Your task to perform on an android device: Open Yahoo.com Image 0: 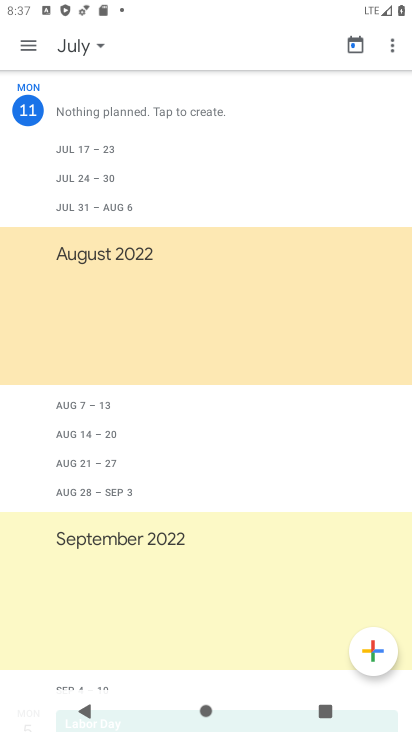
Step 0: press home button
Your task to perform on an android device: Open Yahoo.com Image 1: 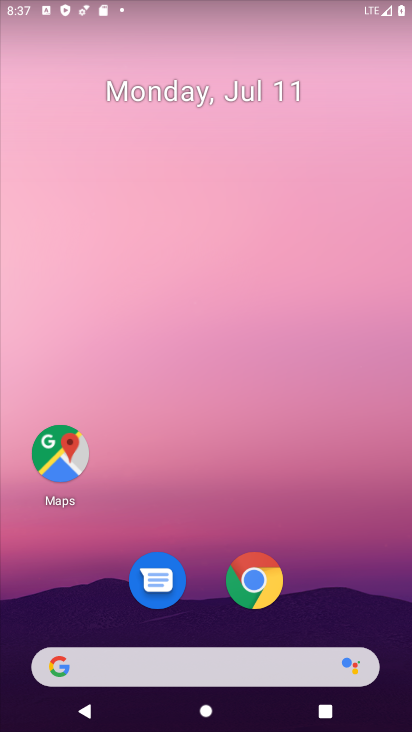
Step 1: click (200, 672)
Your task to perform on an android device: Open Yahoo.com Image 2: 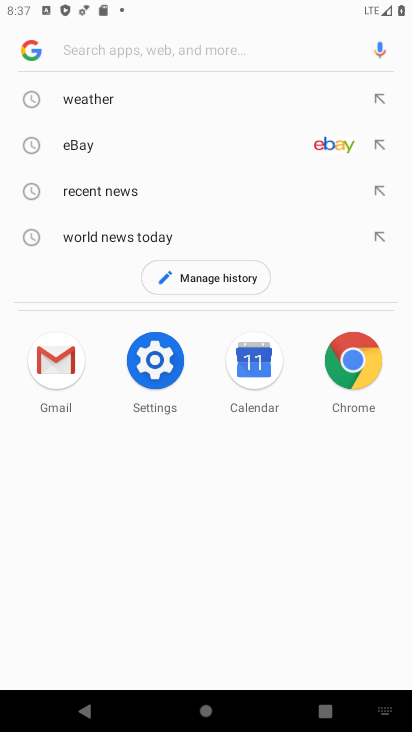
Step 2: type "yahoo.com"
Your task to perform on an android device: Open Yahoo.com Image 3: 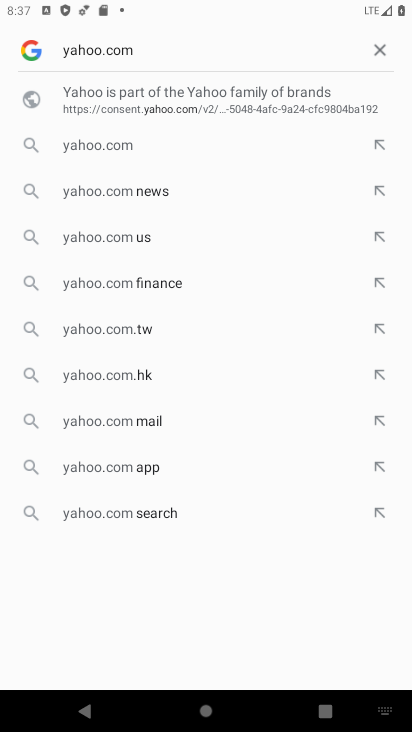
Step 3: click (158, 93)
Your task to perform on an android device: Open Yahoo.com Image 4: 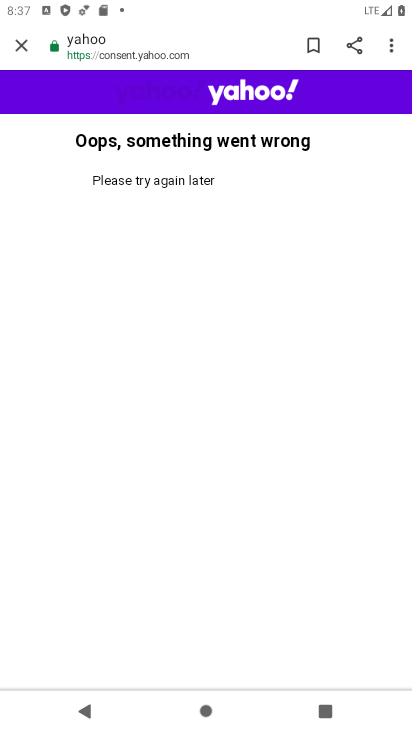
Step 4: press back button
Your task to perform on an android device: Open Yahoo.com Image 5: 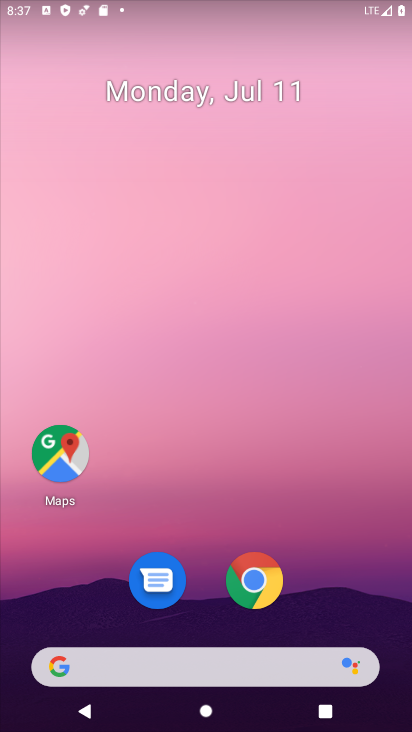
Step 5: click (214, 672)
Your task to perform on an android device: Open Yahoo.com Image 6: 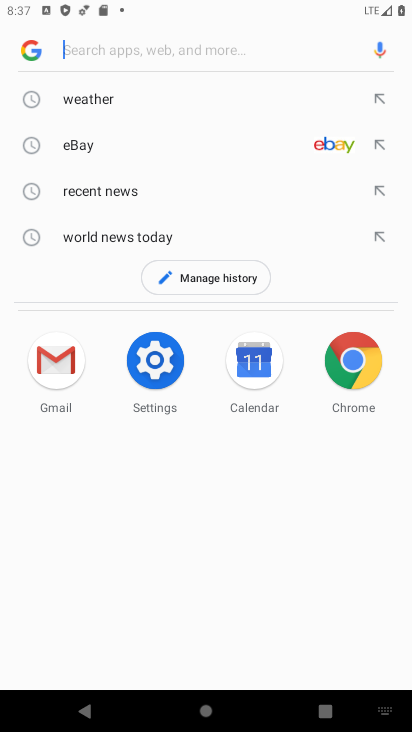
Step 6: type "yahoo.com"
Your task to perform on an android device: Open Yahoo.com Image 7: 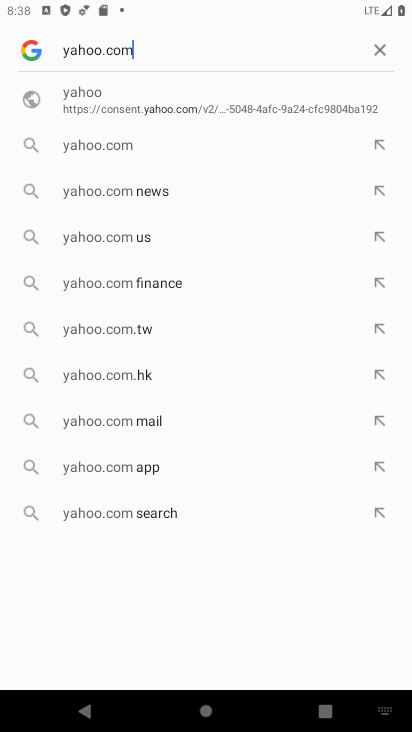
Step 7: click (114, 140)
Your task to perform on an android device: Open Yahoo.com Image 8: 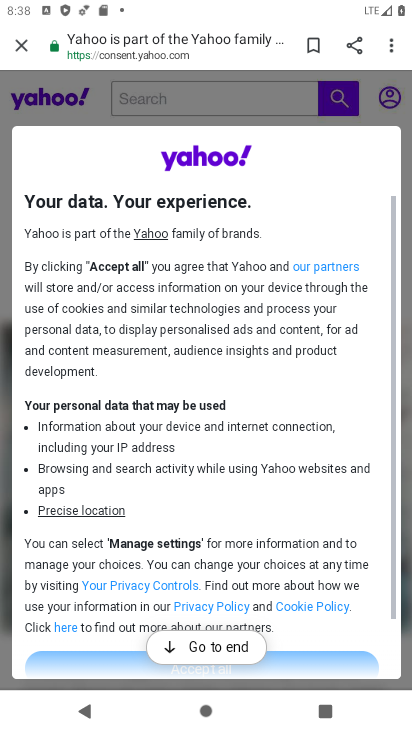
Step 8: click (249, 646)
Your task to perform on an android device: Open Yahoo.com Image 9: 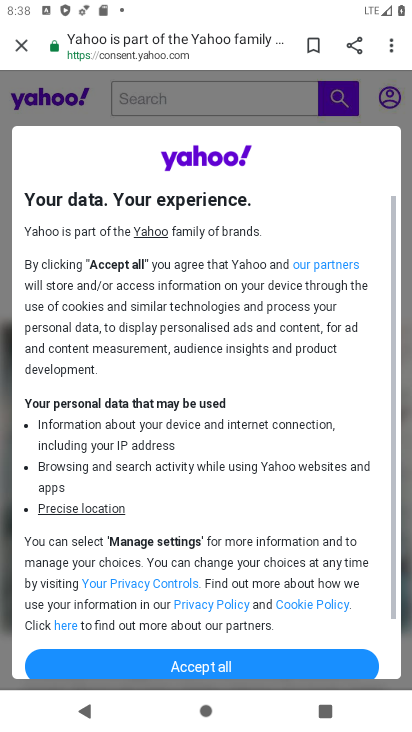
Step 9: click (233, 646)
Your task to perform on an android device: Open Yahoo.com Image 10: 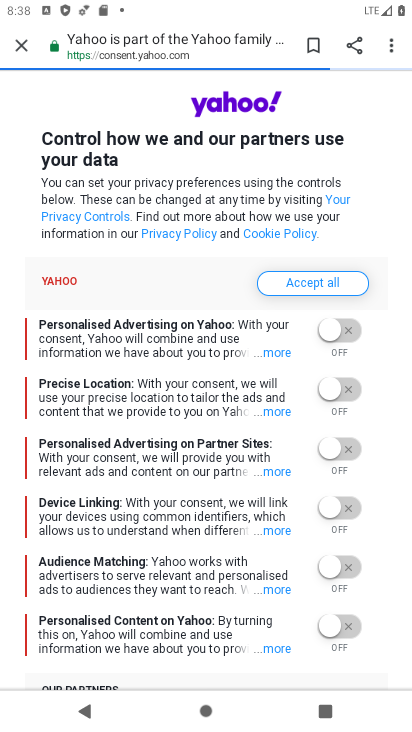
Step 10: click (238, 609)
Your task to perform on an android device: Open Yahoo.com Image 11: 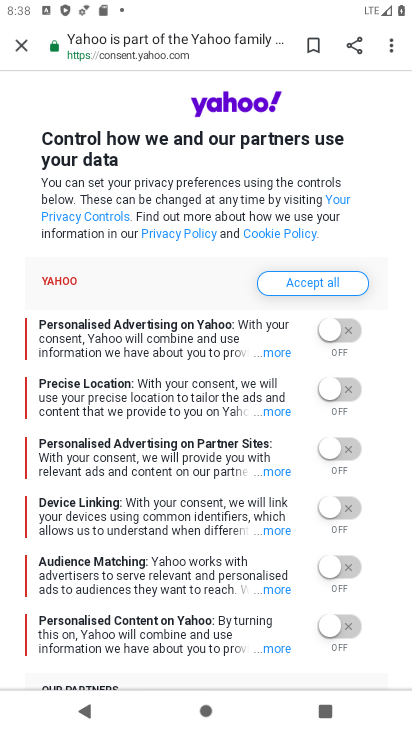
Step 11: click (343, 274)
Your task to perform on an android device: Open Yahoo.com Image 12: 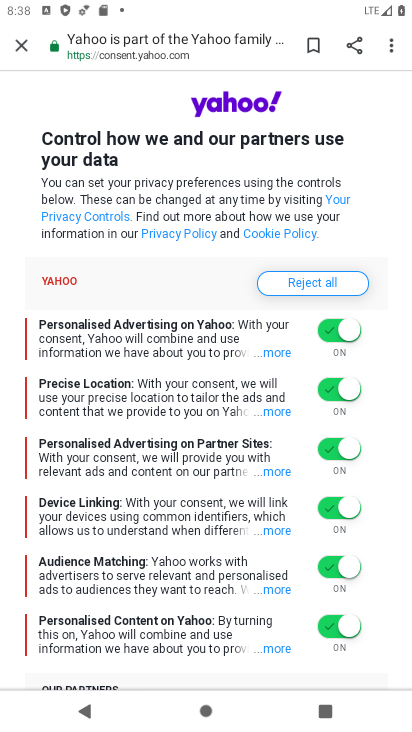
Step 12: task complete